Your task to perform on an android device: Search for the best rated Bluetooth earbuds on Ali express Image 0: 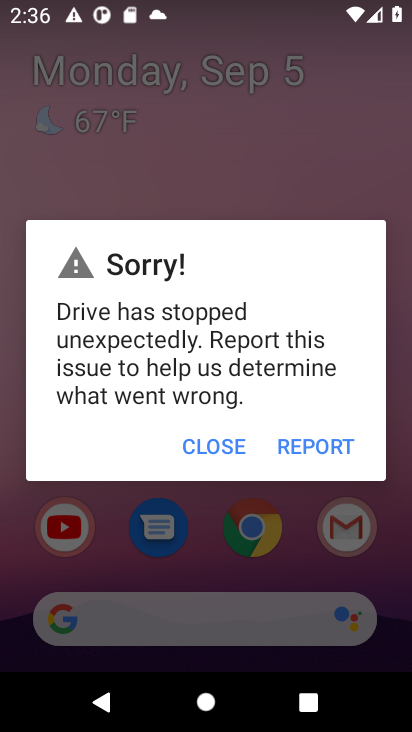
Step 0: click (206, 448)
Your task to perform on an android device: Search for the best rated Bluetooth earbuds on Ali express Image 1: 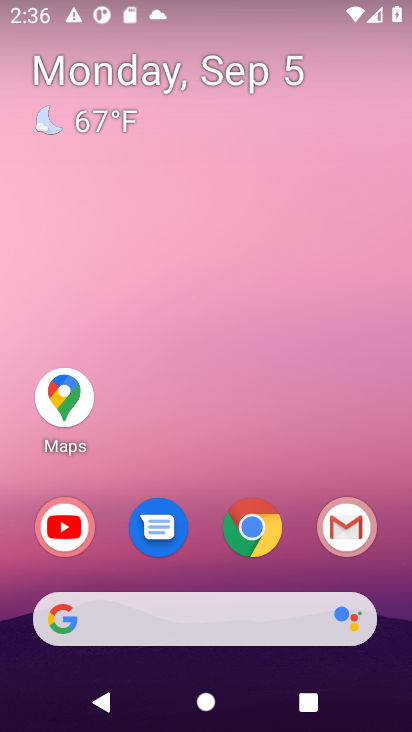
Step 1: click (253, 540)
Your task to perform on an android device: Search for the best rated Bluetooth earbuds on Ali express Image 2: 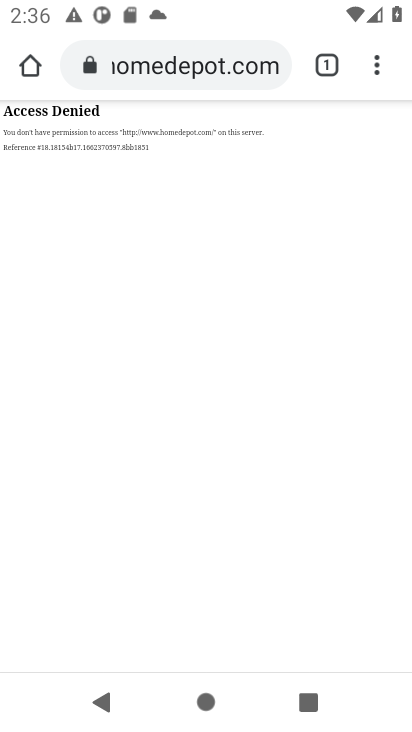
Step 2: click (177, 58)
Your task to perform on an android device: Search for the best rated Bluetooth earbuds on Ali express Image 3: 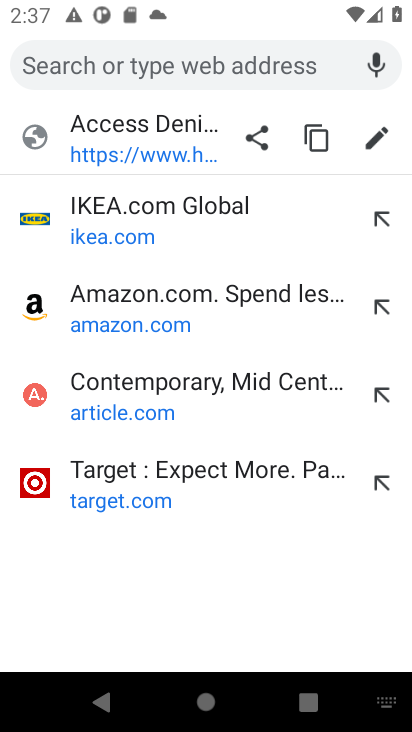
Step 3: type "Aliexpress"
Your task to perform on an android device: Search for the best rated Bluetooth earbuds on Ali express Image 4: 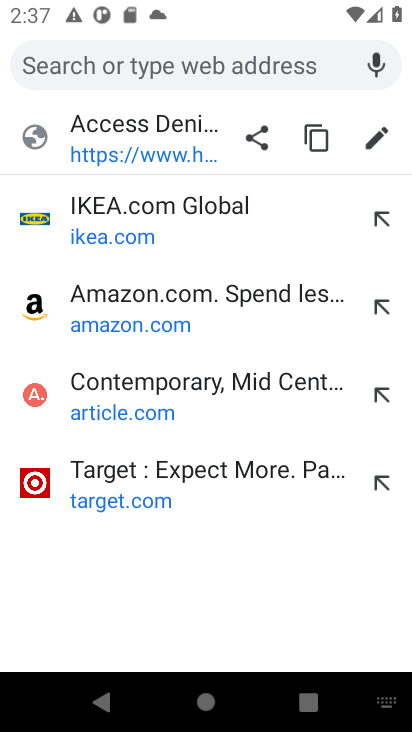
Step 4: click (209, 72)
Your task to perform on an android device: Search for the best rated Bluetooth earbuds on Ali express Image 5: 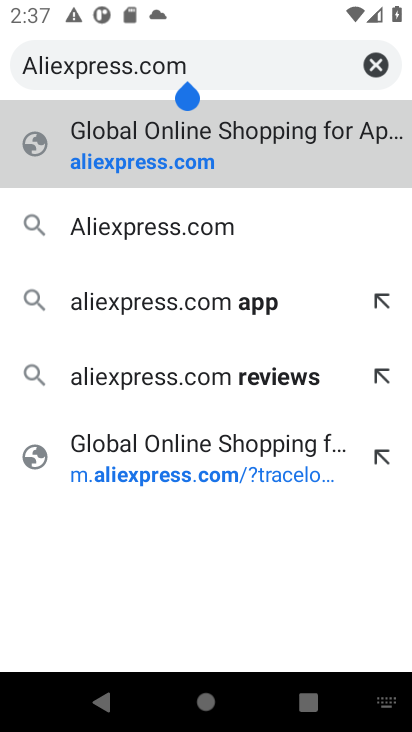
Step 5: click (179, 225)
Your task to perform on an android device: Search for the best rated Bluetooth earbuds on Ali express Image 6: 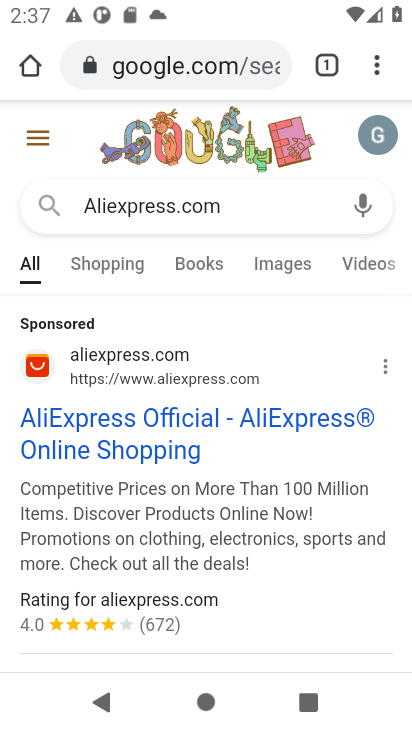
Step 6: click (176, 437)
Your task to perform on an android device: Search for the best rated Bluetooth earbuds on Ali express Image 7: 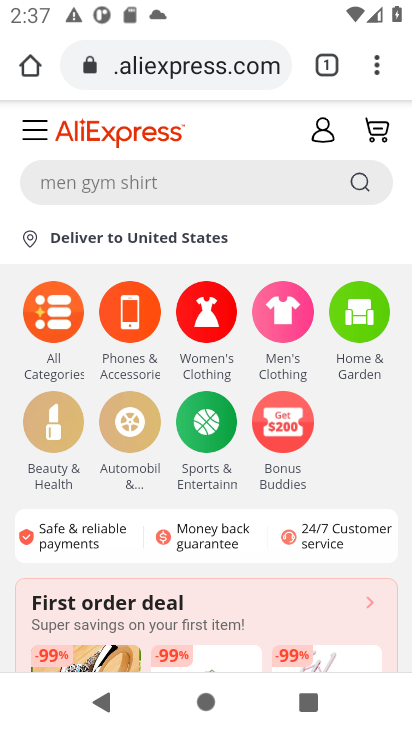
Step 7: click (171, 187)
Your task to perform on an android device: Search for the best rated Bluetooth earbuds on Ali express Image 8: 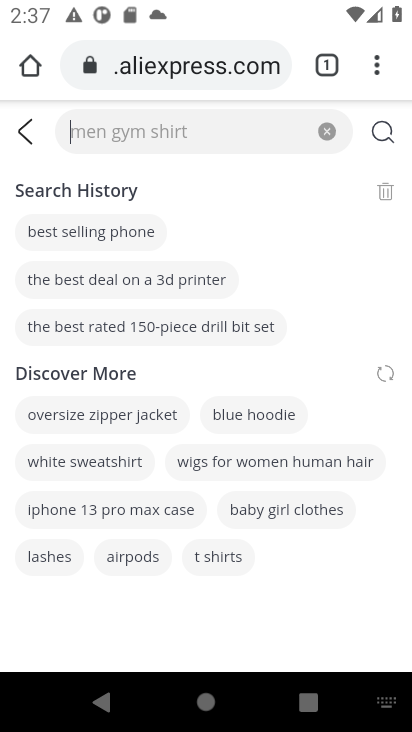
Step 8: type "the best rated Bluetooth earbuds"
Your task to perform on an android device: Search for the best rated Bluetooth earbuds on Ali express Image 9: 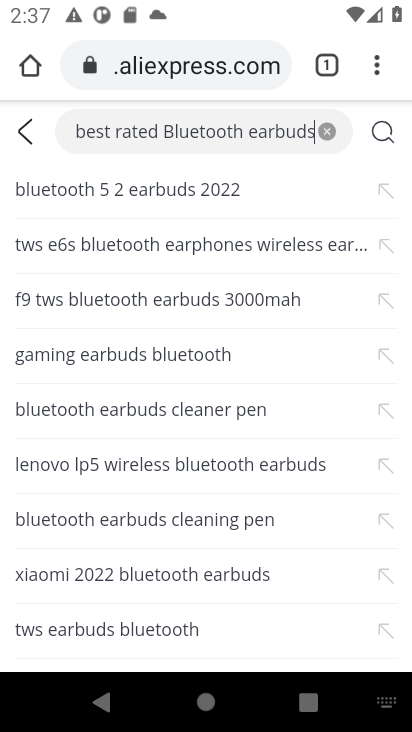
Step 9: click (388, 138)
Your task to perform on an android device: Search for the best rated Bluetooth earbuds on Ali express Image 10: 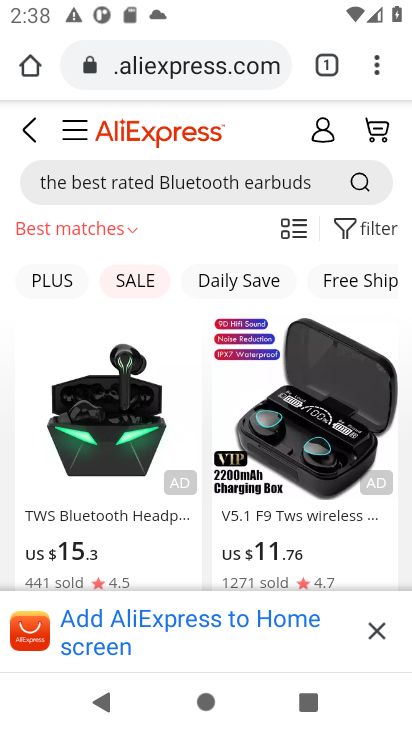
Step 10: task complete